Your task to perform on an android device: Show me productivity apps on the Play Store Image 0: 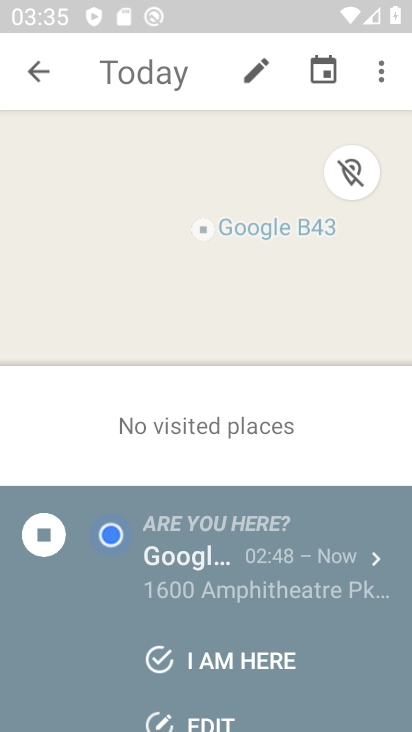
Step 0: press home button
Your task to perform on an android device: Show me productivity apps on the Play Store Image 1: 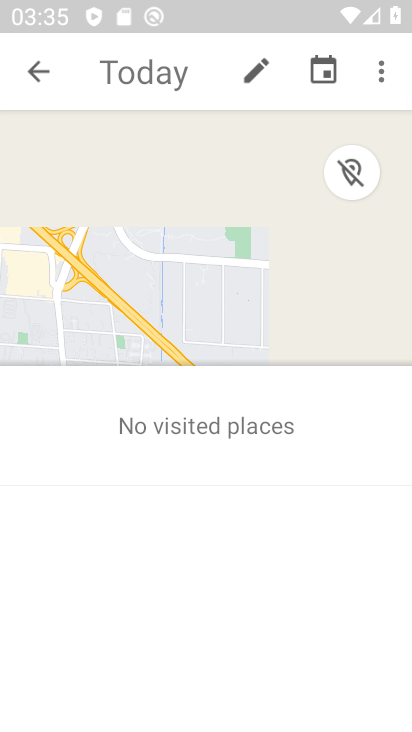
Step 1: press home button
Your task to perform on an android device: Show me productivity apps on the Play Store Image 2: 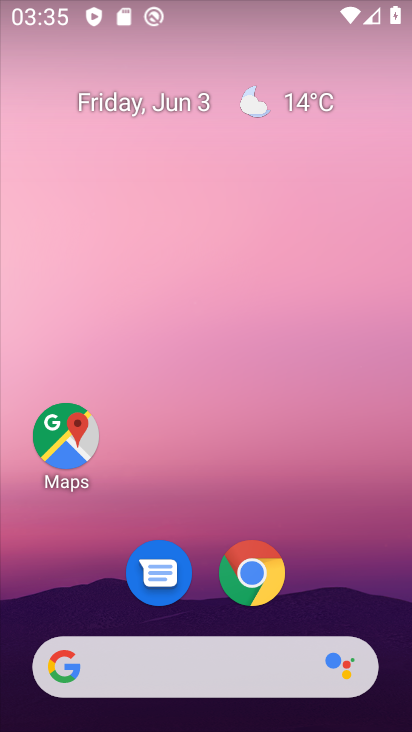
Step 2: drag from (290, 663) to (298, 13)
Your task to perform on an android device: Show me productivity apps on the Play Store Image 3: 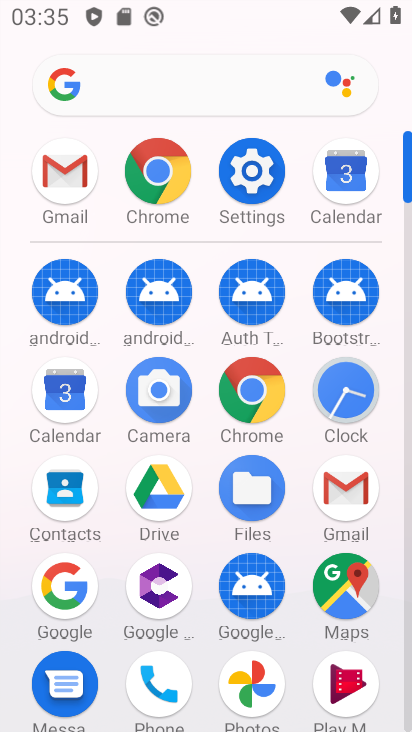
Step 3: drag from (307, 655) to (309, 333)
Your task to perform on an android device: Show me productivity apps on the Play Store Image 4: 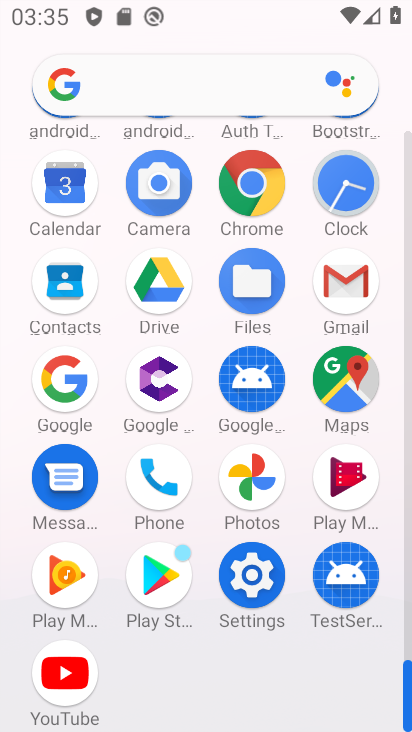
Step 4: click (165, 579)
Your task to perform on an android device: Show me productivity apps on the Play Store Image 5: 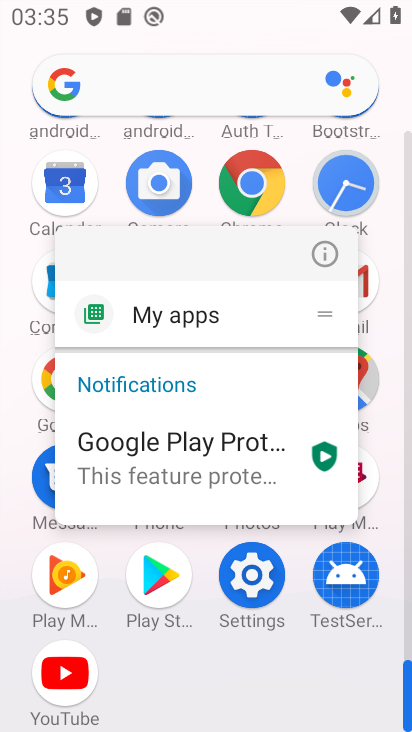
Step 5: click (167, 579)
Your task to perform on an android device: Show me productivity apps on the Play Store Image 6: 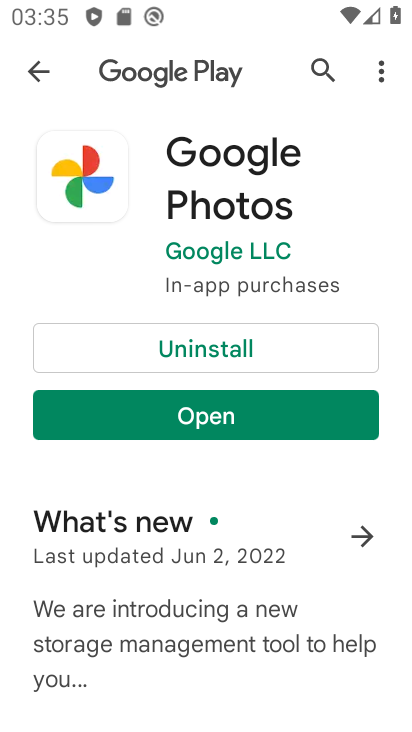
Step 6: press back button
Your task to perform on an android device: Show me productivity apps on the Play Store Image 7: 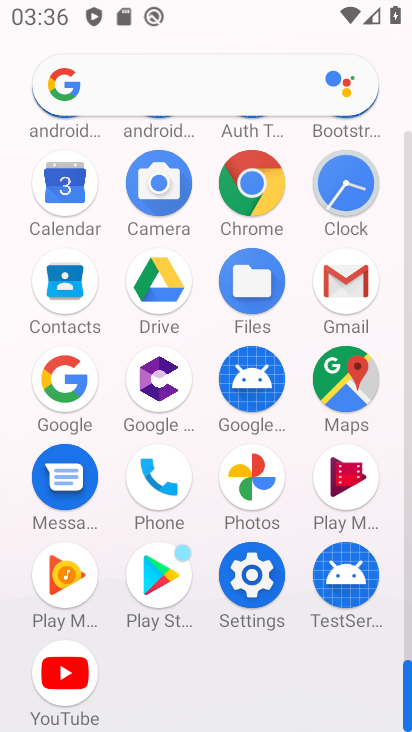
Step 7: click (165, 581)
Your task to perform on an android device: Show me productivity apps on the Play Store Image 8: 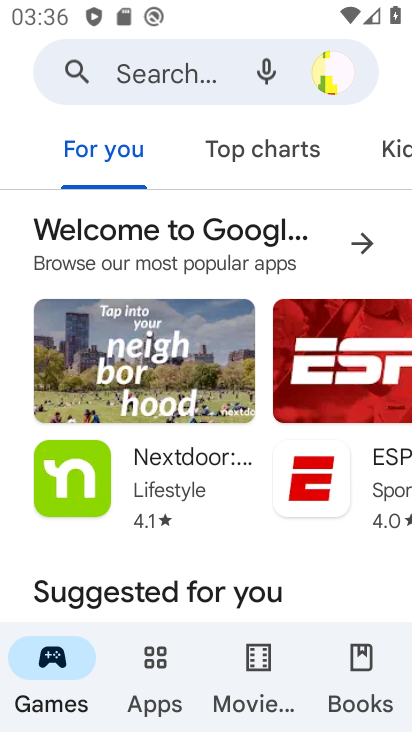
Step 8: click (157, 659)
Your task to perform on an android device: Show me productivity apps on the Play Store Image 9: 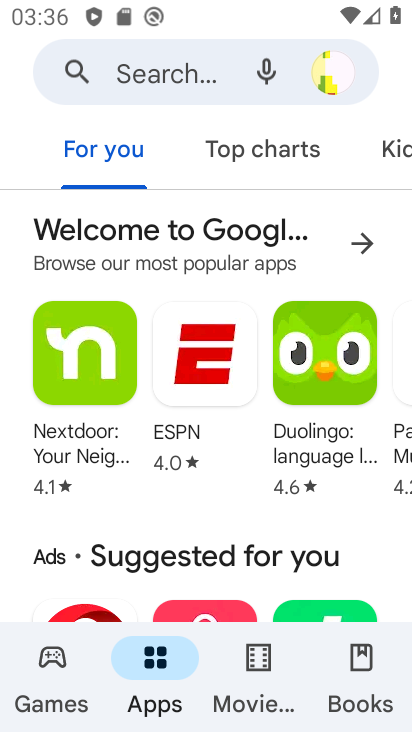
Step 9: drag from (262, 568) to (308, 177)
Your task to perform on an android device: Show me productivity apps on the Play Store Image 10: 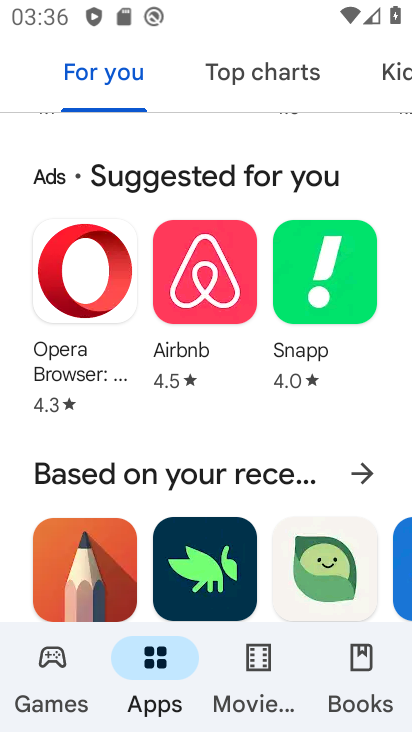
Step 10: drag from (251, 594) to (259, 116)
Your task to perform on an android device: Show me productivity apps on the Play Store Image 11: 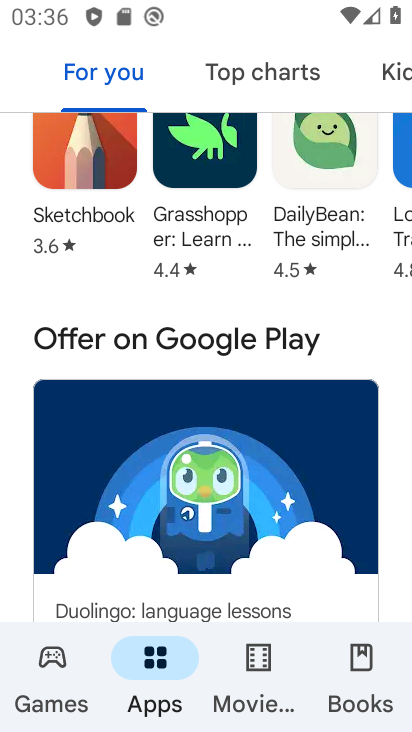
Step 11: drag from (292, 621) to (310, 209)
Your task to perform on an android device: Show me productivity apps on the Play Store Image 12: 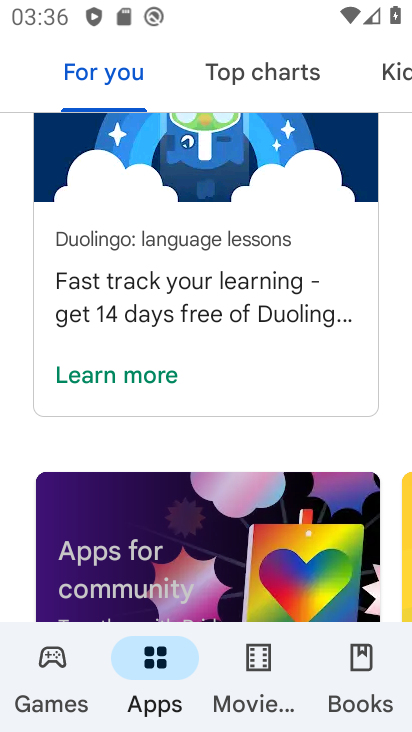
Step 12: drag from (331, 511) to (388, 98)
Your task to perform on an android device: Show me productivity apps on the Play Store Image 13: 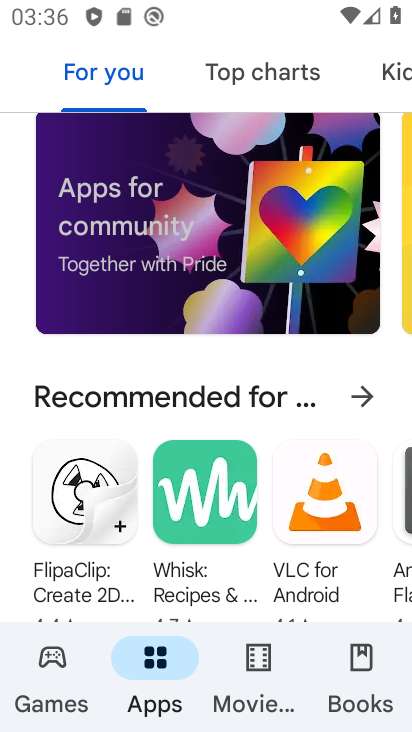
Step 13: drag from (362, 529) to (408, 109)
Your task to perform on an android device: Show me productivity apps on the Play Store Image 14: 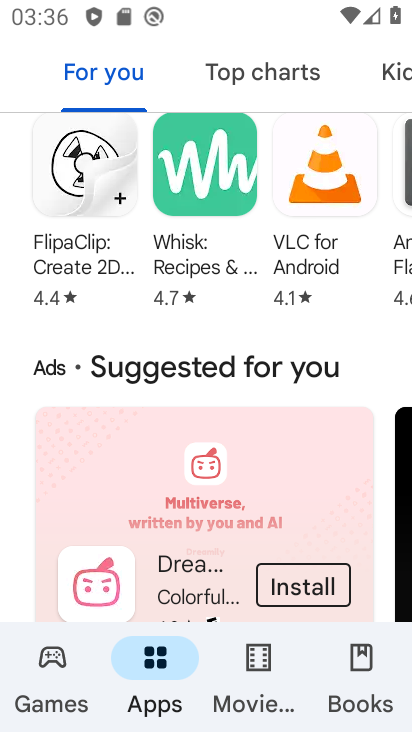
Step 14: drag from (331, 570) to (354, 180)
Your task to perform on an android device: Show me productivity apps on the Play Store Image 15: 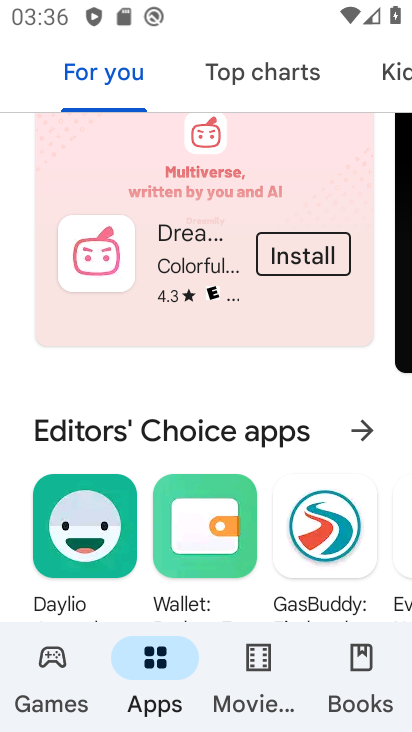
Step 15: drag from (284, 595) to (318, 92)
Your task to perform on an android device: Show me productivity apps on the Play Store Image 16: 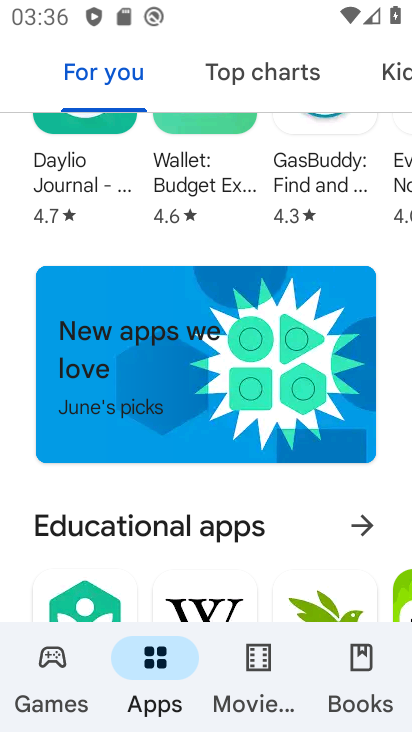
Step 16: drag from (289, 560) to (301, 101)
Your task to perform on an android device: Show me productivity apps on the Play Store Image 17: 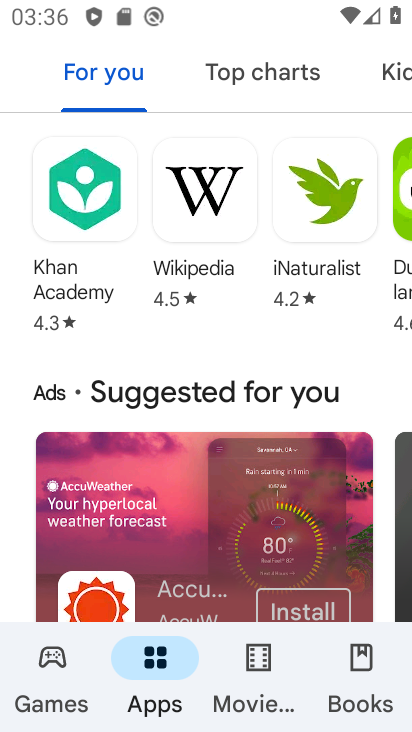
Step 17: drag from (310, 525) to (367, 8)
Your task to perform on an android device: Show me productivity apps on the Play Store Image 18: 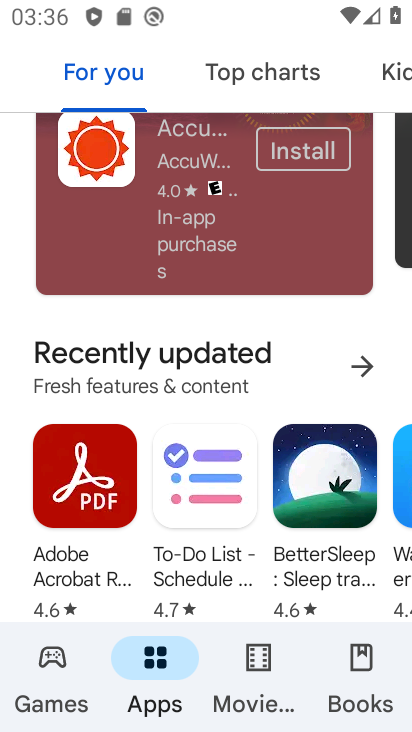
Step 18: drag from (366, 365) to (374, 20)
Your task to perform on an android device: Show me productivity apps on the Play Store Image 19: 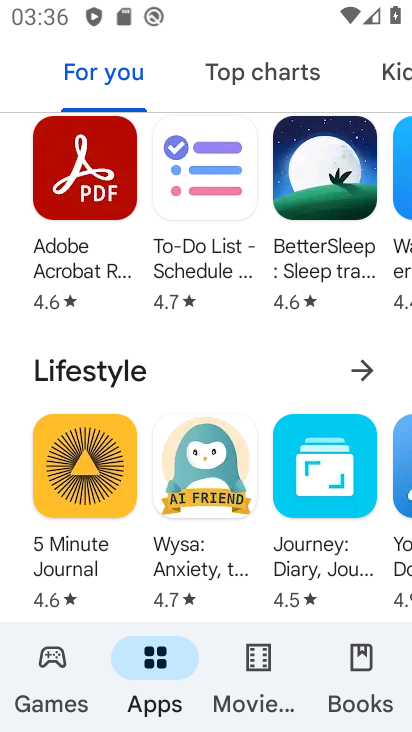
Step 19: drag from (282, 599) to (319, 34)
Your task to perform on an android device: Show me productivity apps on the Play Store Image 20: 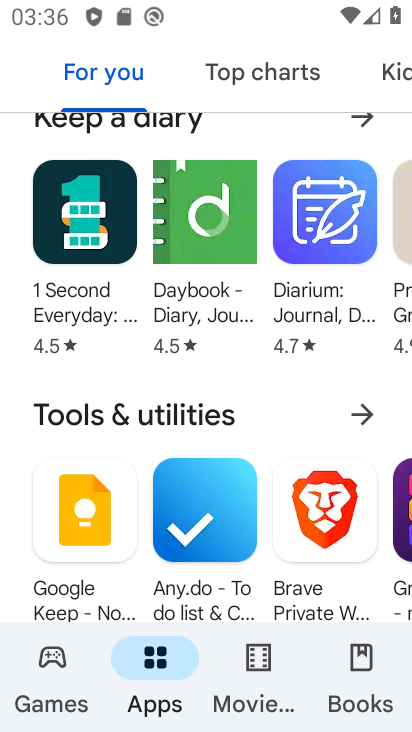
Step 20: drag from (281, 572) to (332, 101)
Your task to perform on an android device: Show me productivity apps on the Play Store Image 21: 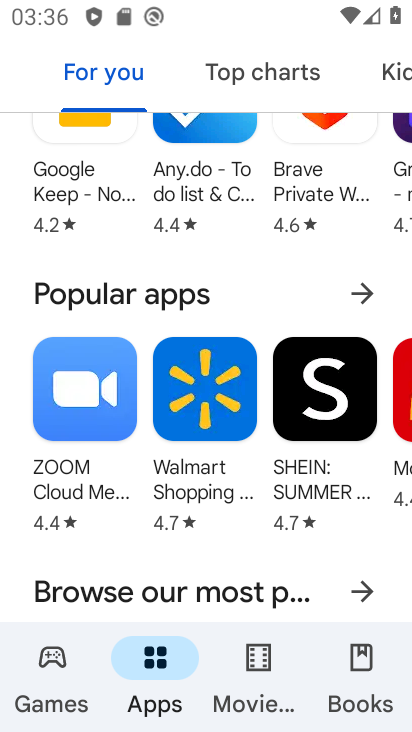
Step 21: drag from (306, 609) to (338, 126)
Your task to perform on an android device: Show me productivity apps on the Play Store Image 22: 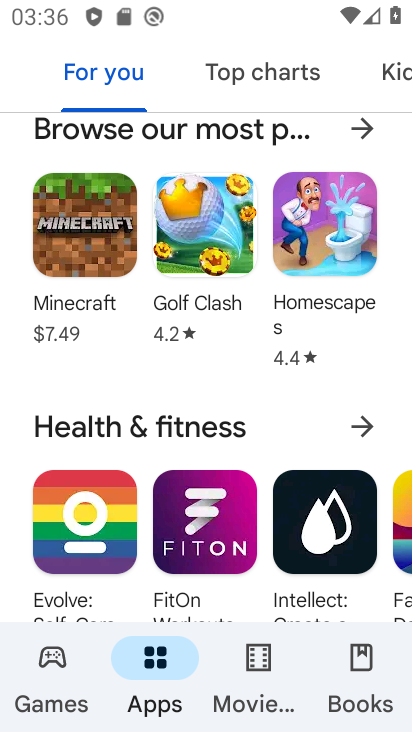
Step 22: drag from (344, 540) to (370, 100)
Your task to perform on an android device: Show me productivity apps on the Play Store Image 23: 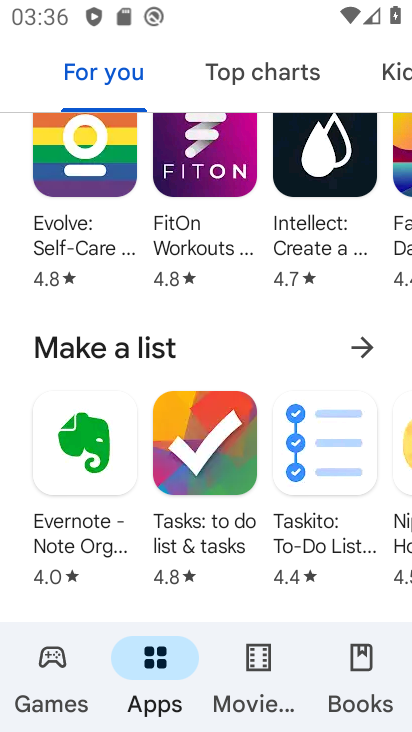
Step 23: drag from (302, 572) to (345, 33)
Your task to perform on an android device: Show me productivity apps on the Play Store Image 24: 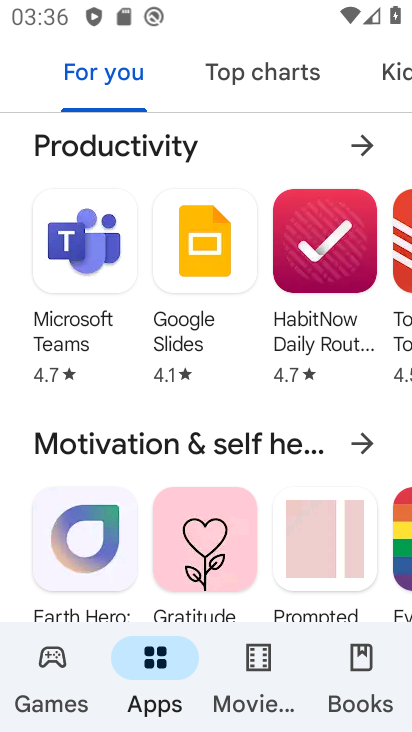
Step 24: click (355, 148)
Your task to perform on an android device: Show me productivity apps on the Play Store Image 25: 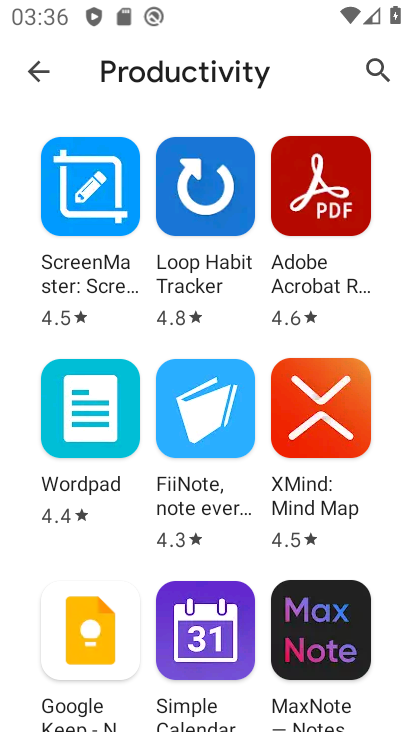
Step 25: task complete